Your task to perform on an android device: make emails show in primary in the gmail app Image 0: 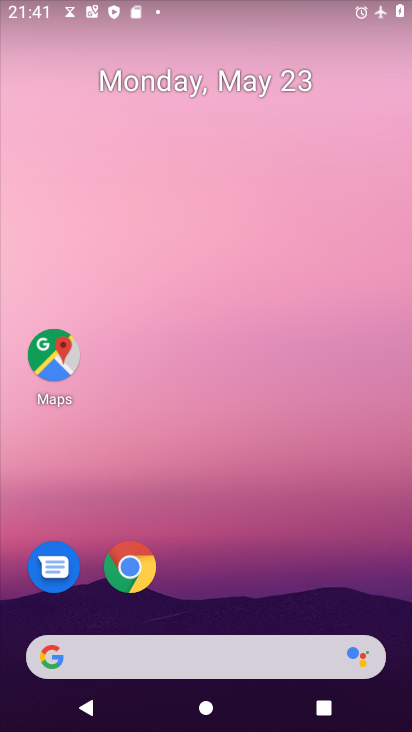
Step 0: drag from (270, 554) to (274, 88)
Your task to perform on an android device: make emails show in primary in the gmail app Image 1: 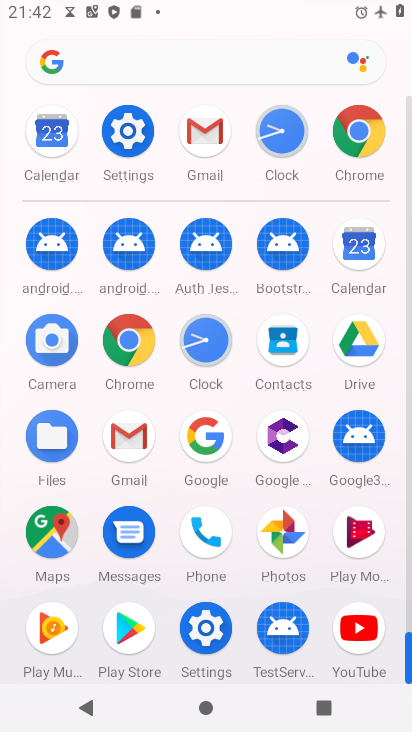
Step 1: click (123, 428)
Your task to perform on an android device: make emails show in primary in the gmail app Image 2: 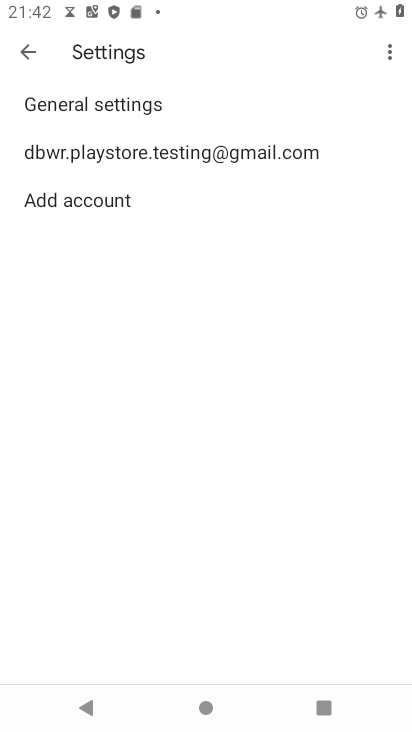
Step 2: click (202, 141)
Your task to perform on an android device: make emails show in primary in the gmail app Image 3: 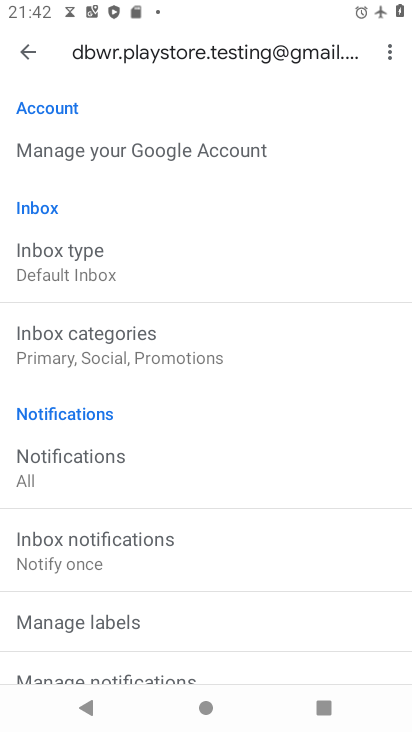
Step 3: task complete